Your task to perform on an android device: Open network settings Image 0: 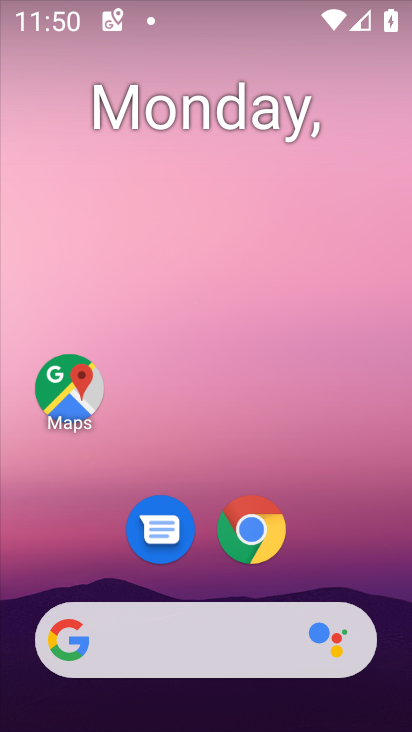
Step 0: press home button
Your task to perform on an android device: Open network settings Image 1: 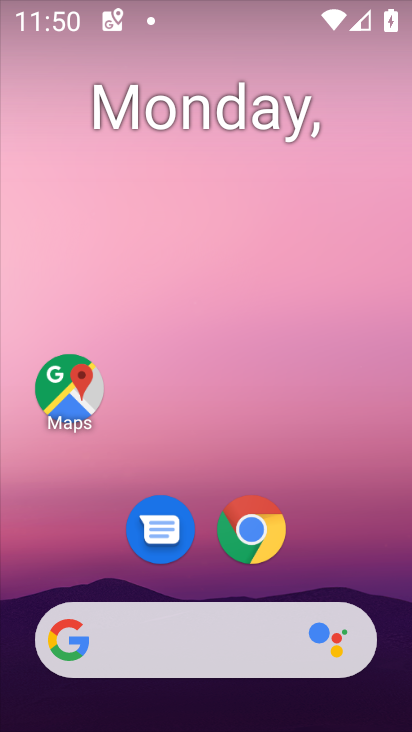
Step 1: drag from (262, 678) to (353, 257)
Your task to perform on an android device: Open network settings Image 2: 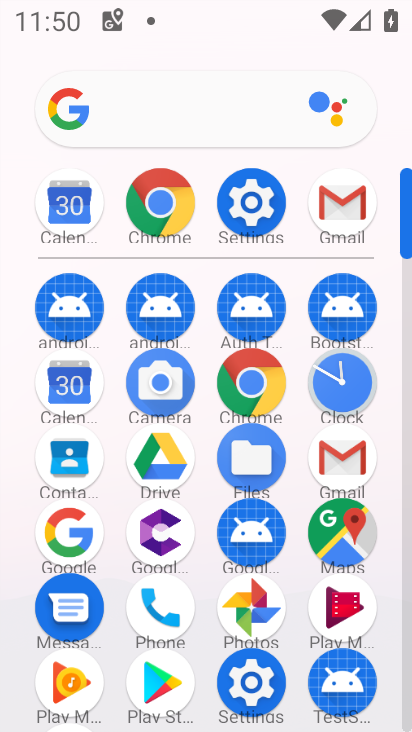
Step 2: click (259, 217)
Your task to perform on an android device: Open network settings Image 3: 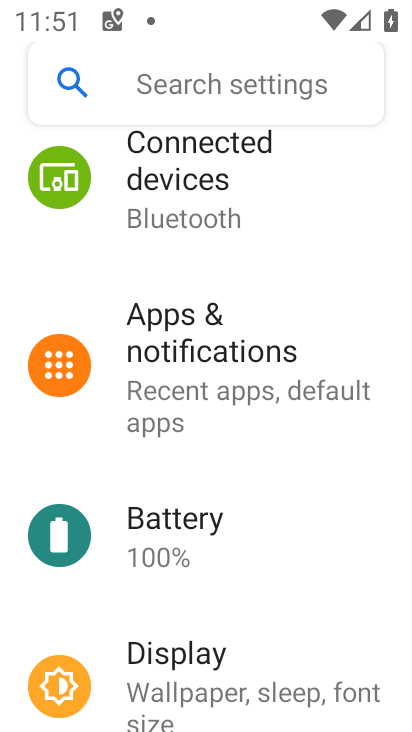
Step 3: drag from (185, 221) to (192, 308)
Your task to perform on an android device: Open network settings Image 4: 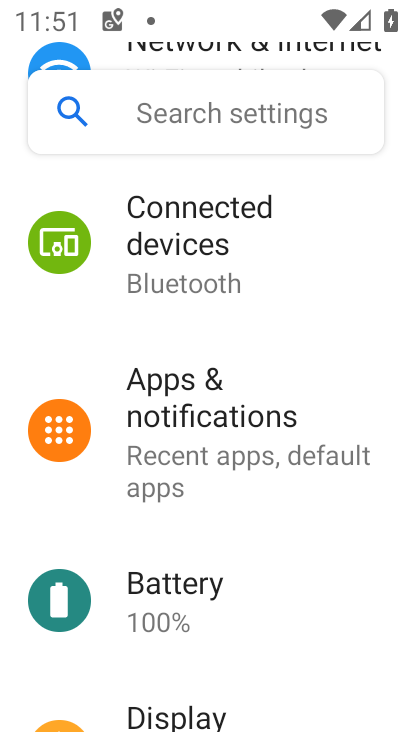
Step 4: drag from (192, 308) to (201, 404)
Your task to perform on an android device: Open network settings Image 5: 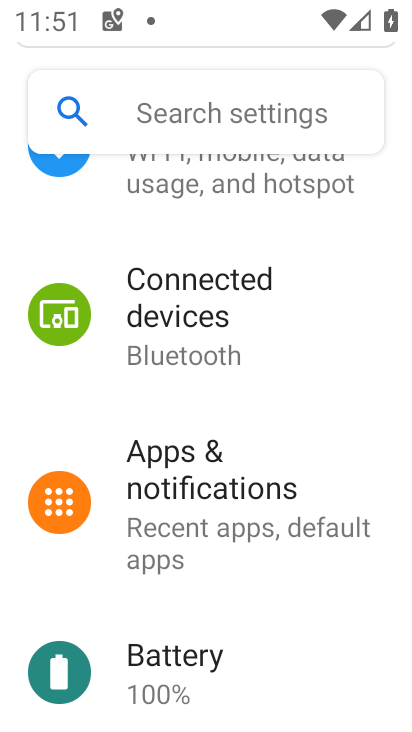
Step 5: click (239, 176)
Your task to perform on an android device: Open network settings Image 6: 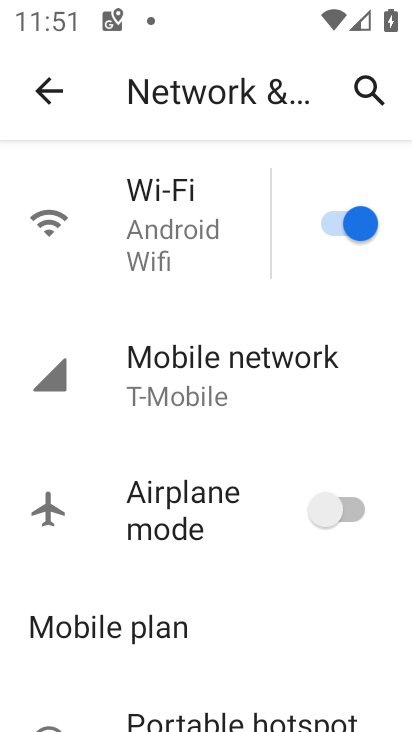
Step 6: task complete